Your task to perform on an android device: show emergency info Image 0: 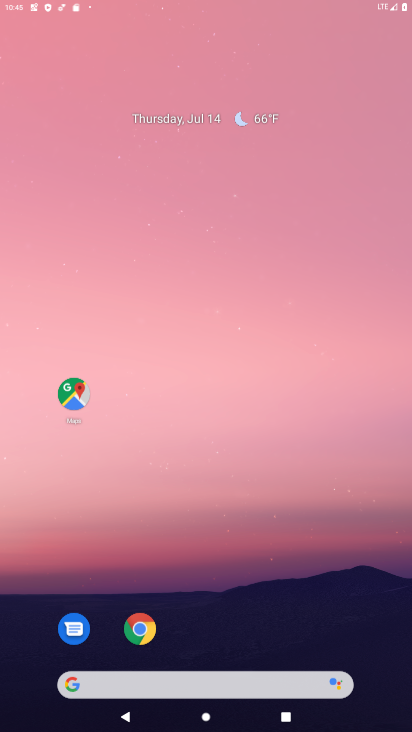
Step 0: press home button
Your task to perform on an android device: show emergency info Image 1: 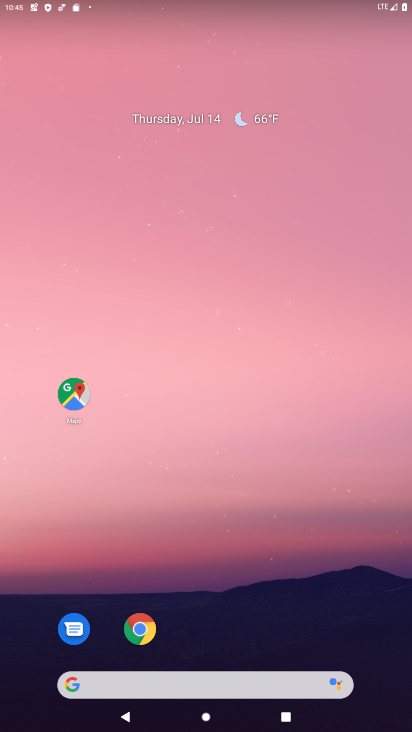
Step 1: drag from (281, 613) to (281, 99)
Your task to perform on an android device: show emergency info Image 2: 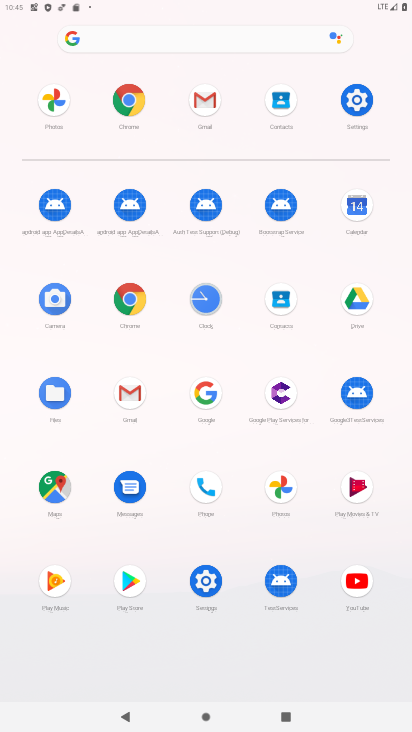
Step 2: click (355, 101)
Your task to perform on an android device: show emergency info Image 3: 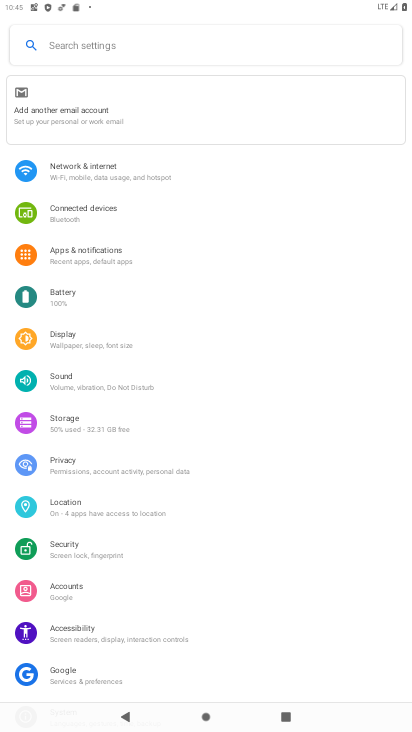
Step 3: drag from (228, 652) to (228, 259)
Your task to perform on an android device: show emergency info Image 4: 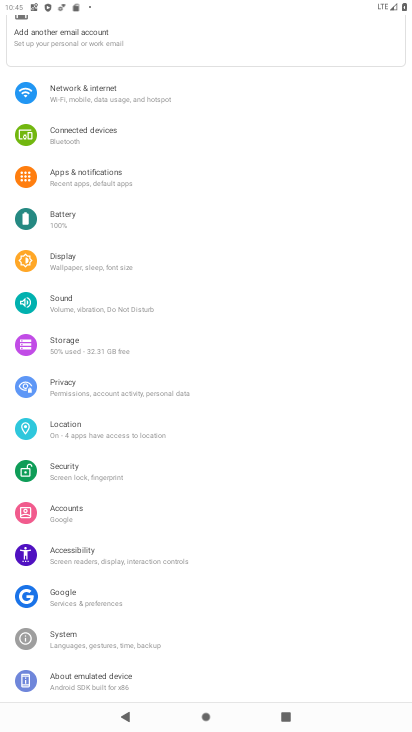
Step 4: click (60, 685)
Your task to perform on an android device: show emergency info Image 5: 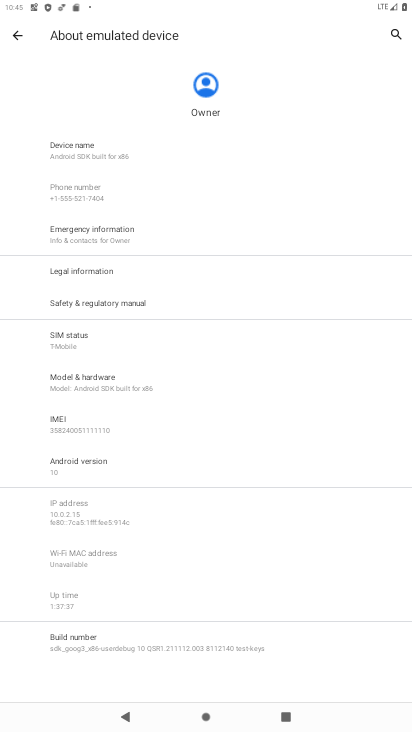
Step 5: drag from (158, 628) to (280, 76)
Your task to perform on an android device: show emergency info Image 6: 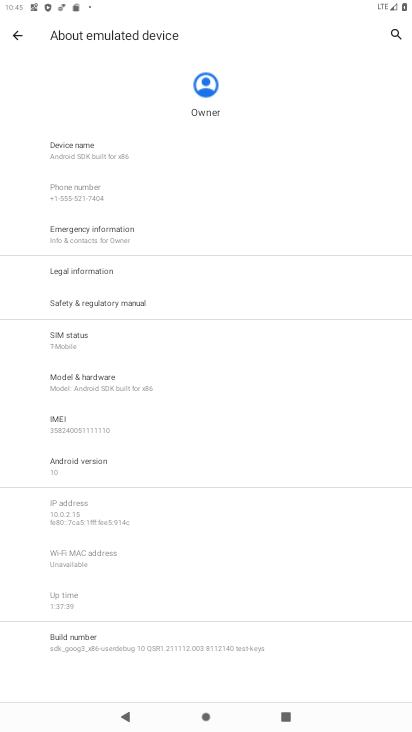
Step 6: drag from (143, 614) to (194, 86)
Your task to perform on an android device: show emergency info Image 7: 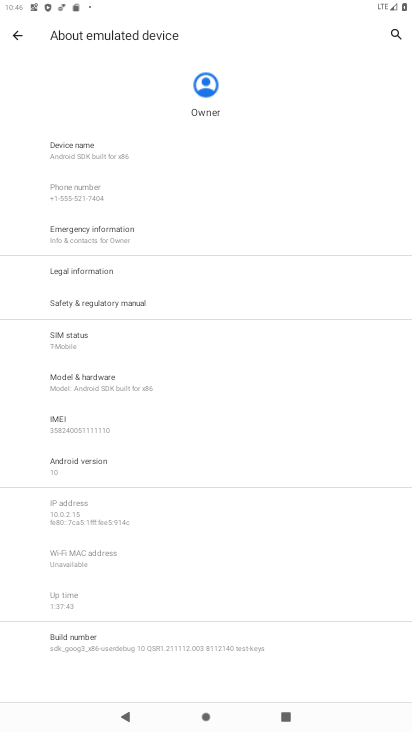
Step 7: click (95, 224)
Your task to perform on an android device: show emergency info Image 8: 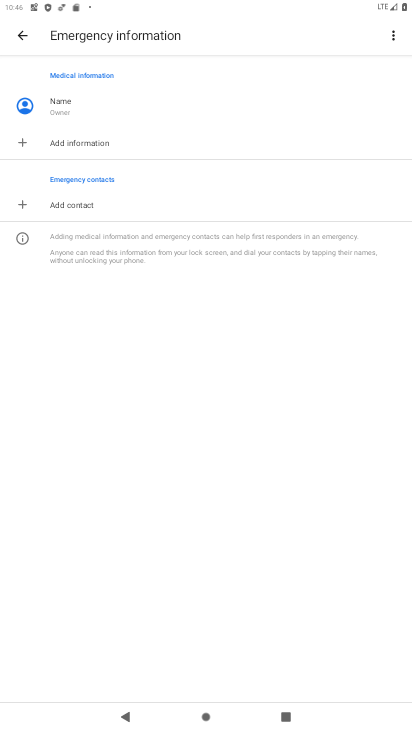
Step 8: task complete